Your task to perform on an android device: turn notification dots off Image 0: 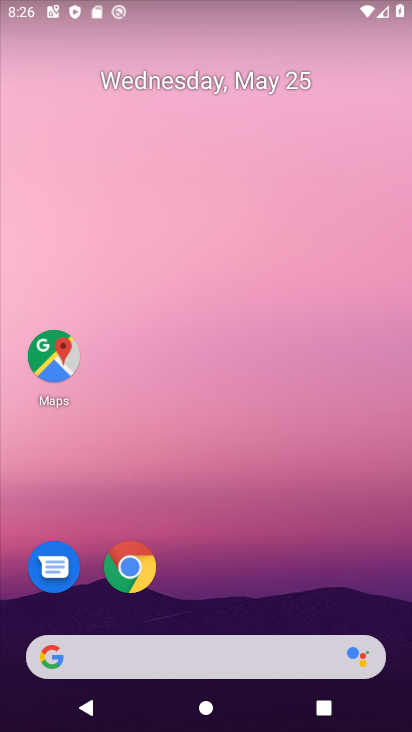
Step 0: drag from (234, 516) to (254, 9)
Your task to perform on an android device: turn notification dots off Image 1: 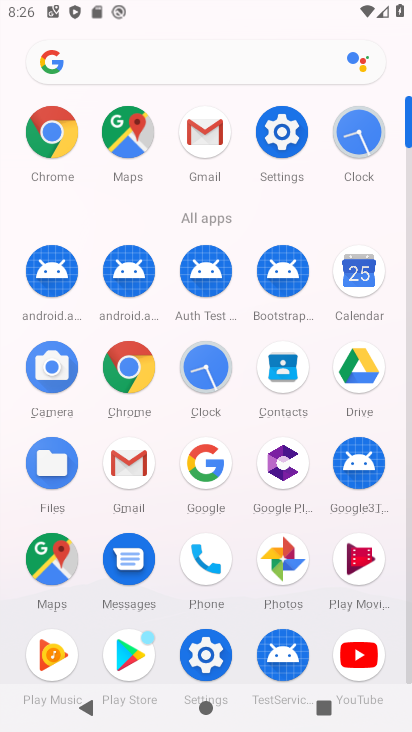
Step 1: click (279, 125)
Your task to perform on an android device: turn notification dots off Image 2: 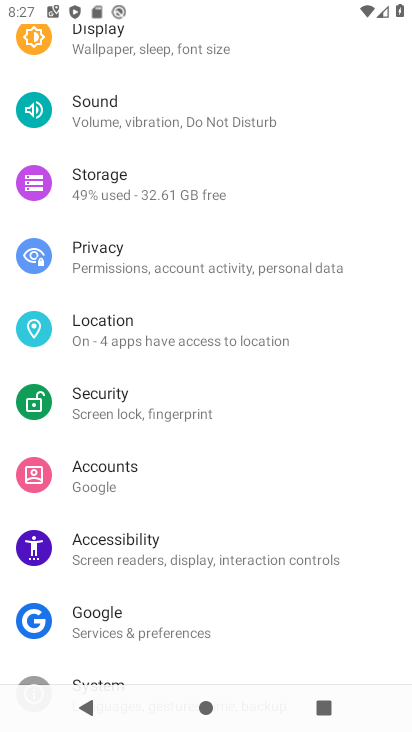
Step 2: drag from (252, 250) to (299, 600)
Your task to perform on an android device: turn notification dots off Image 3: 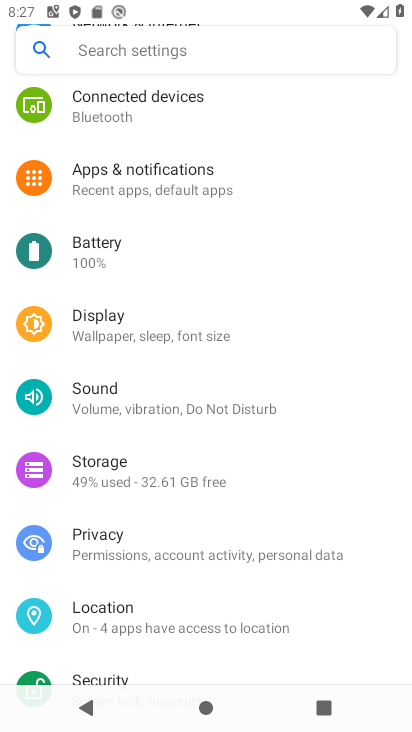
Step 3: click (198, 183)
Your task to perform on an android device: turn notification dots off Image 4: 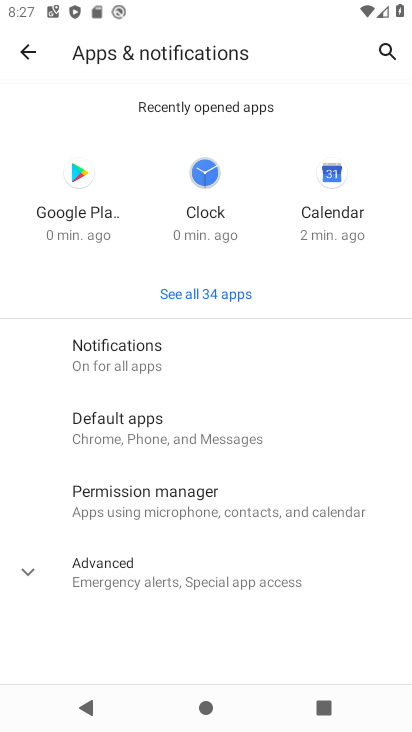
Step 4: click (208, 349)
Your task to perform on an android device: turn notification dots off Image 5: 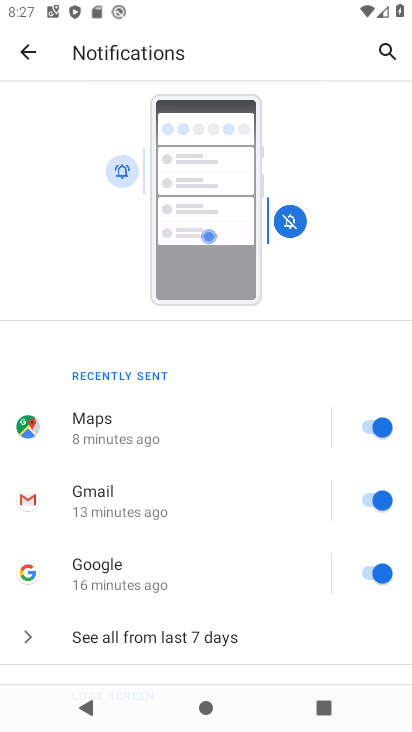
Step 5: drag from (226, 568) to (249, 178)
Your task to perform on an android device: turn notification dots off Image 6: 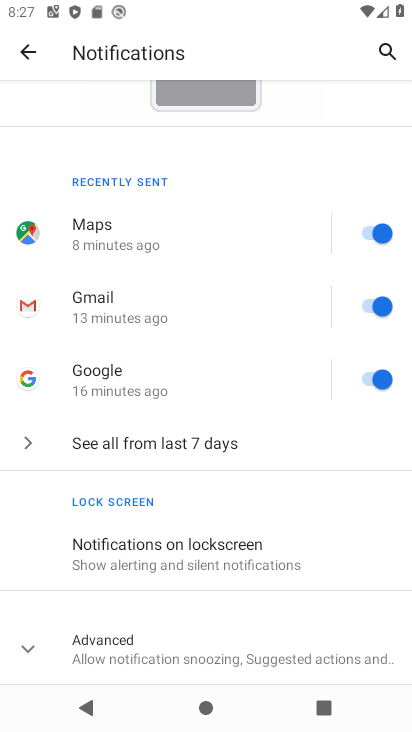
Step 6: click (30, 642)
Your task to perform on an android device: turn notification dots off Image 7: 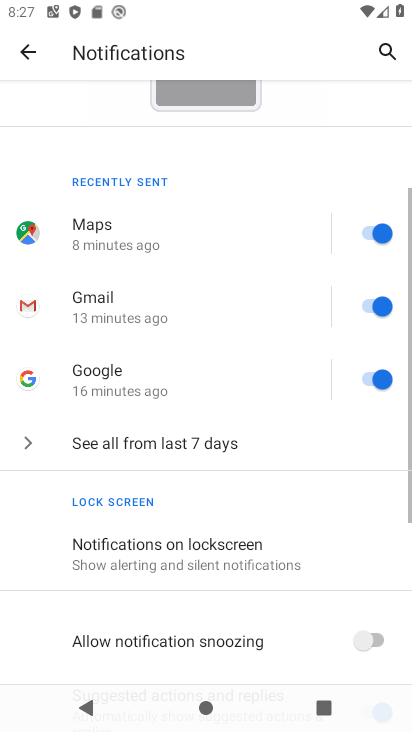
Step 7: drag from (227, 550) to (295, 118)
Your task to perform on an android device: turn notification dots off Image 8: 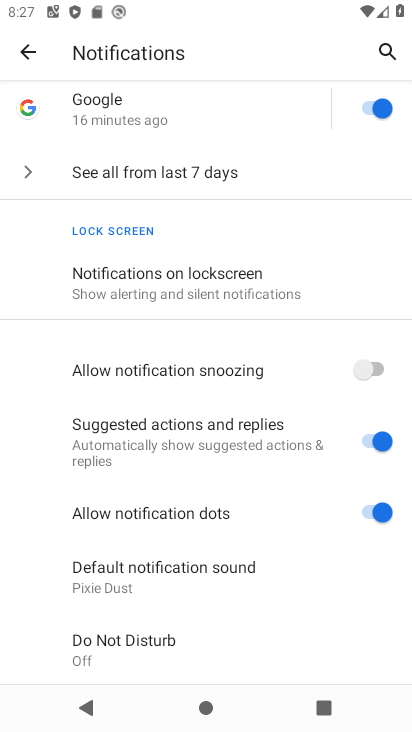
Step 8: click (370, 510)
Your task to perform on an android device: turn notification dots off Image 9: 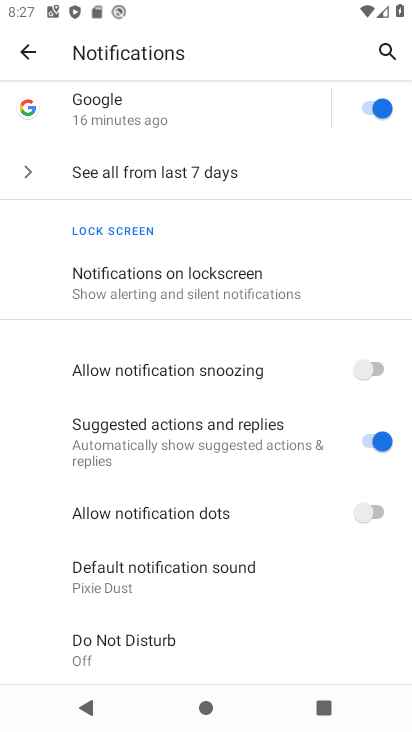
Step 9: task complete